Your task to perform on an android device: Do I have any events today? Image 0: 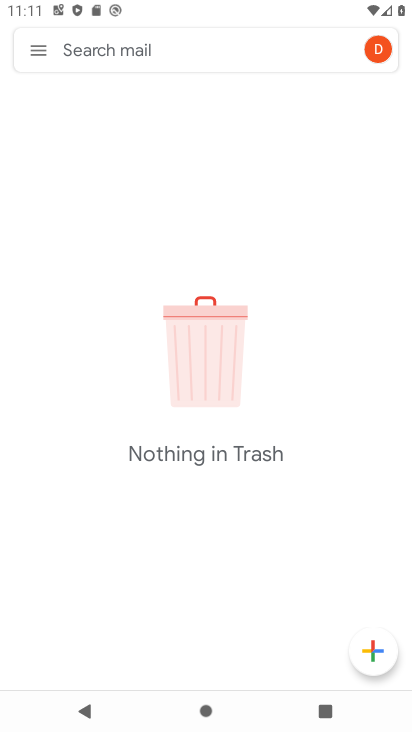
Step 0: press home button
Your task to perform on an android device: Do I have any events today? Image 1: 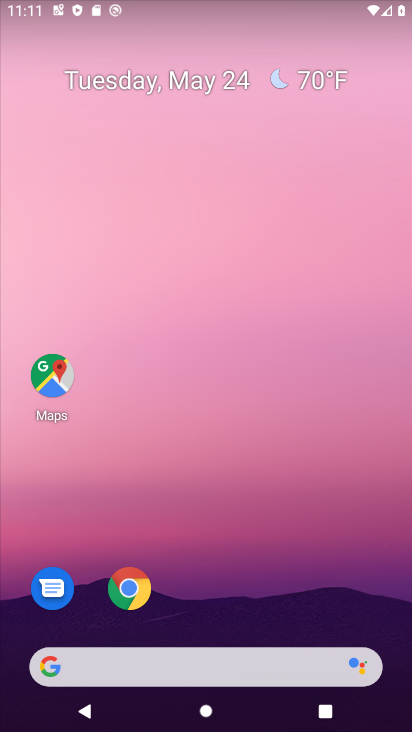
Step 1: drag from (7, 307) to (402, 302)
Your task to perform on an android device: Do I have any events today? Image 2: 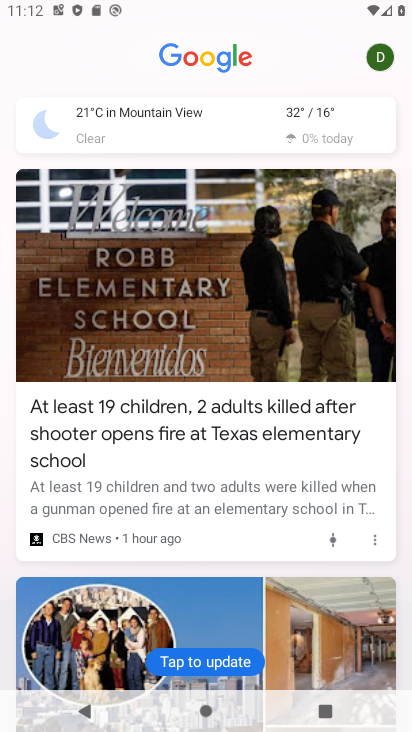
Step 2: press home button
Your task to perform on an android device: Do I have any events today? Image 3: 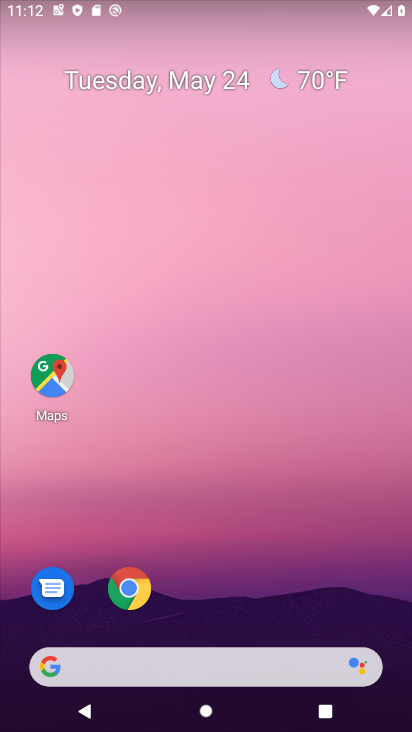
Step 3: drag from (233, 629) to (253, 18)
Your task to perform on an android device: Do I have any events today? Image 4: 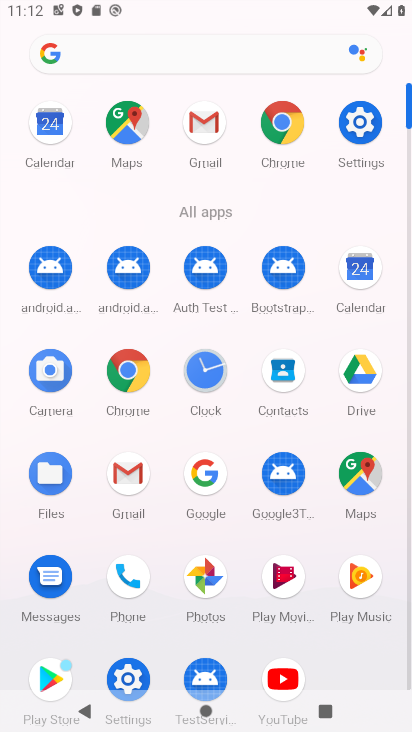
Step 4: click (359, 264)
Your task to perform on an android device: Do I have any events today? Image 5: 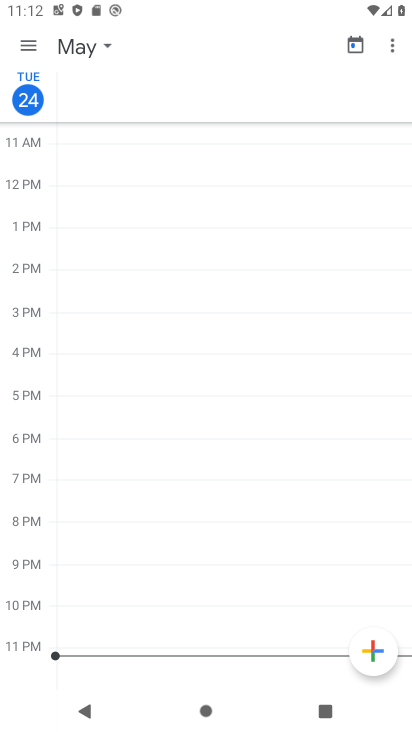
Step 5: task complete